Your task to perform on an android device: Set the phone to "Do not disturb". Image 0: 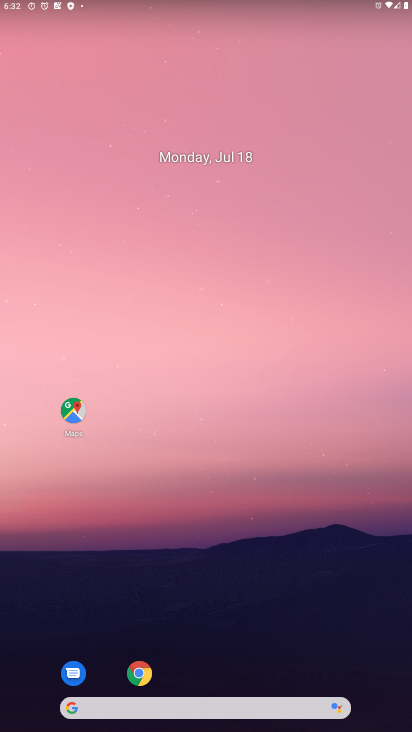
Step 0: drag from (187, 2) to (110, 459)
Your task to perform on an android device: Set the phone to "Do not disturb". Image 1: 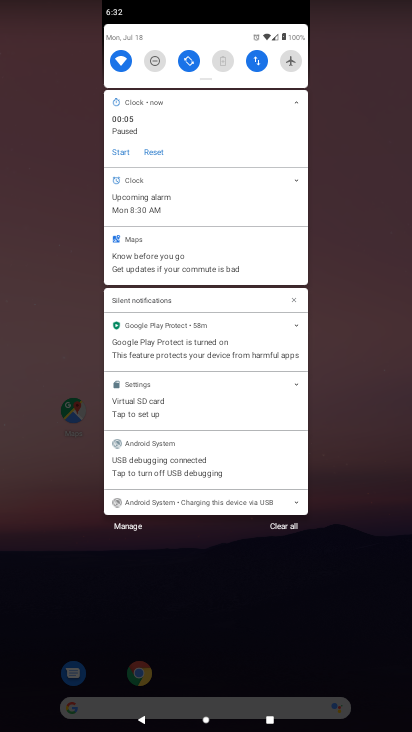
Step 1: drag from (166, 81) to (143, 361)
Your task to perform on an android device: Set the phone to "Do not disturb". Image 2: 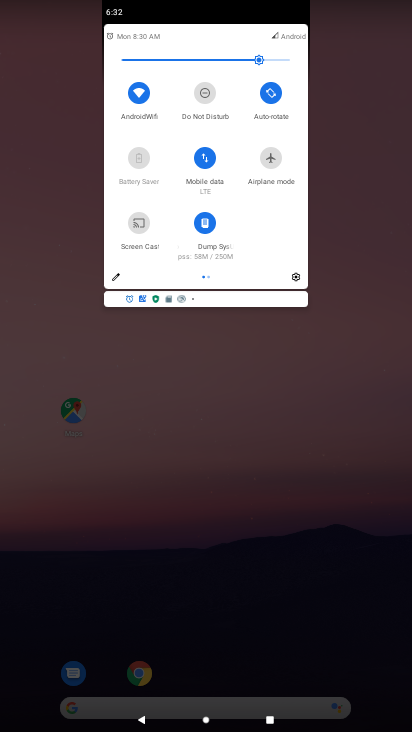
Step 2: click (201, 93)
Your task to perform on an android device: Set the phone to "Do not disturb". Image 3: 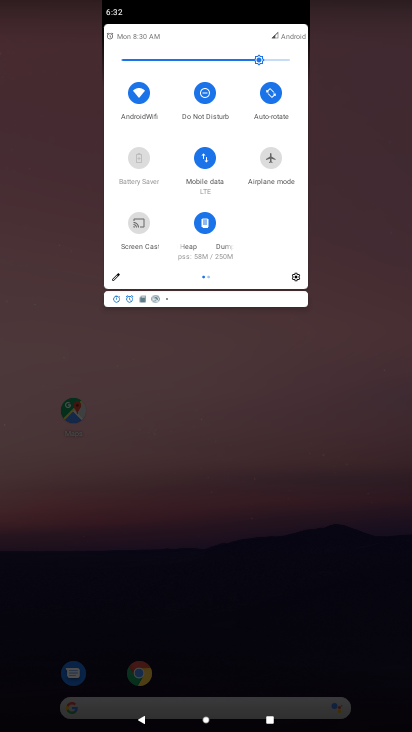
Step 3: click (274, 384)
Your task to perform on an android device: Set the phone to "Do not disturb". Image 4: 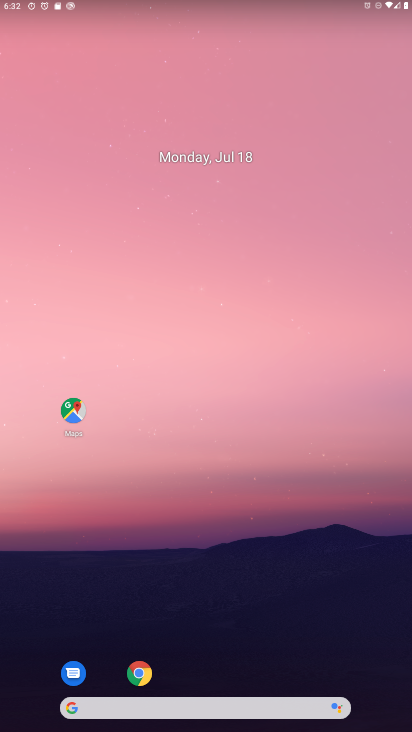
Step 4: task complete